Your task to perform on an android device: What's the weather today? Image 0: 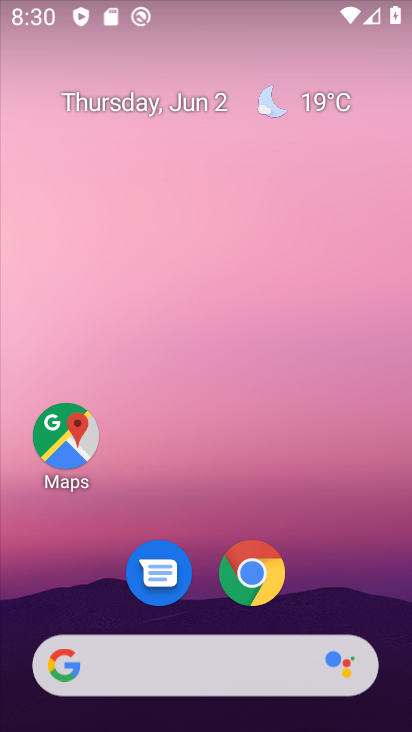
Step 0: click (301, 115)
Your task to perform on an android device: What's the weather today? Image 1: 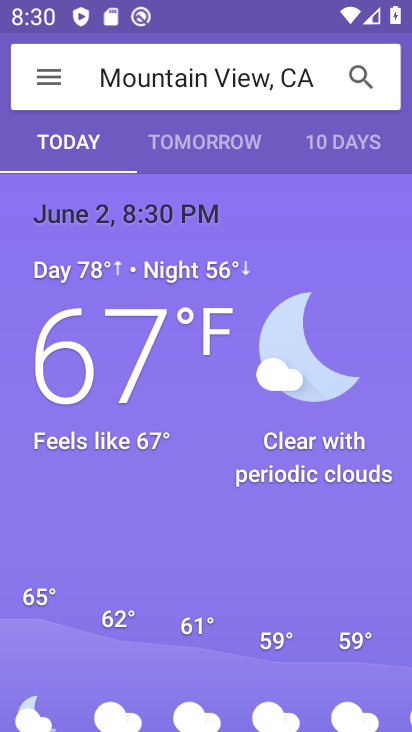
Step 1: task complete